Your task to perform on an android device: change the upload size in google photos Image 0: 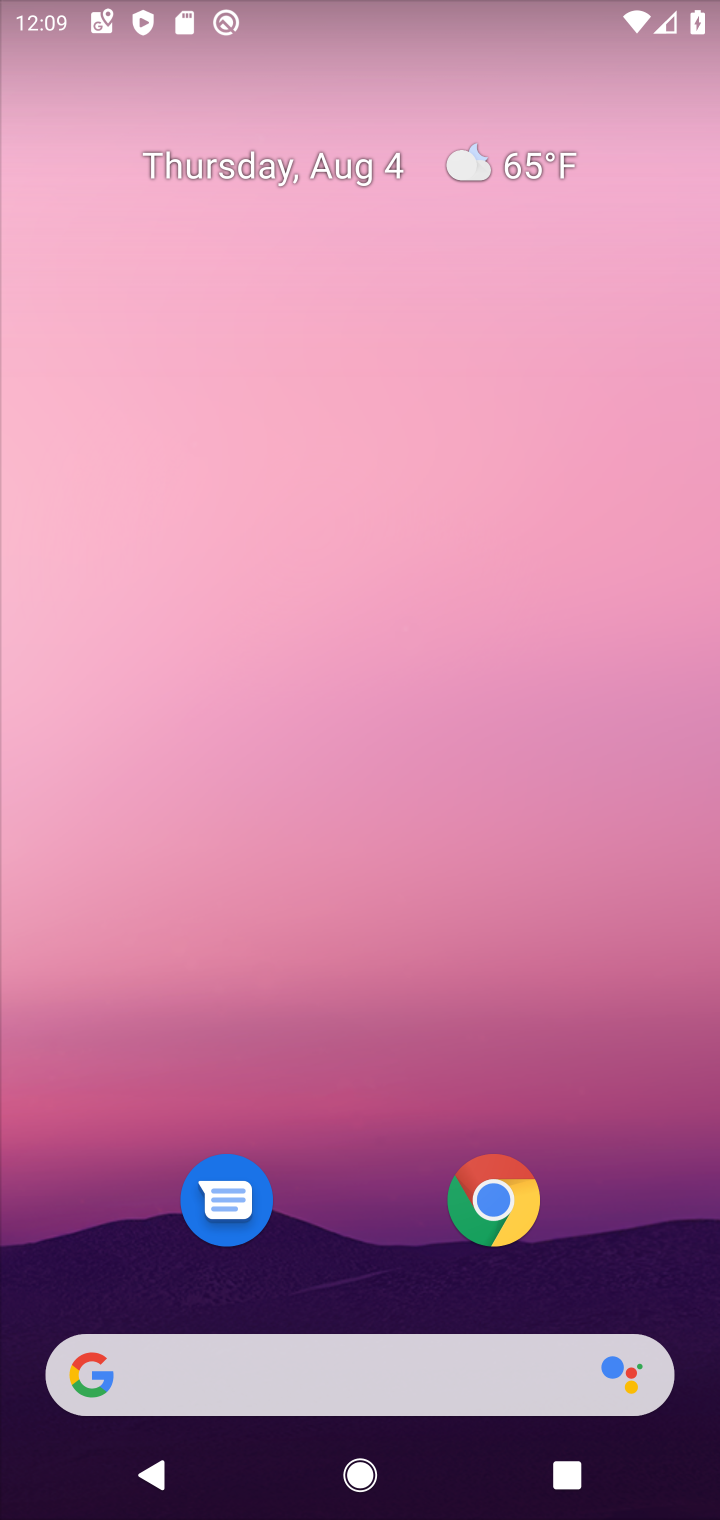
Step 0: press home button
Your task to perform on an android device: change the upload size in google photos Image 1: 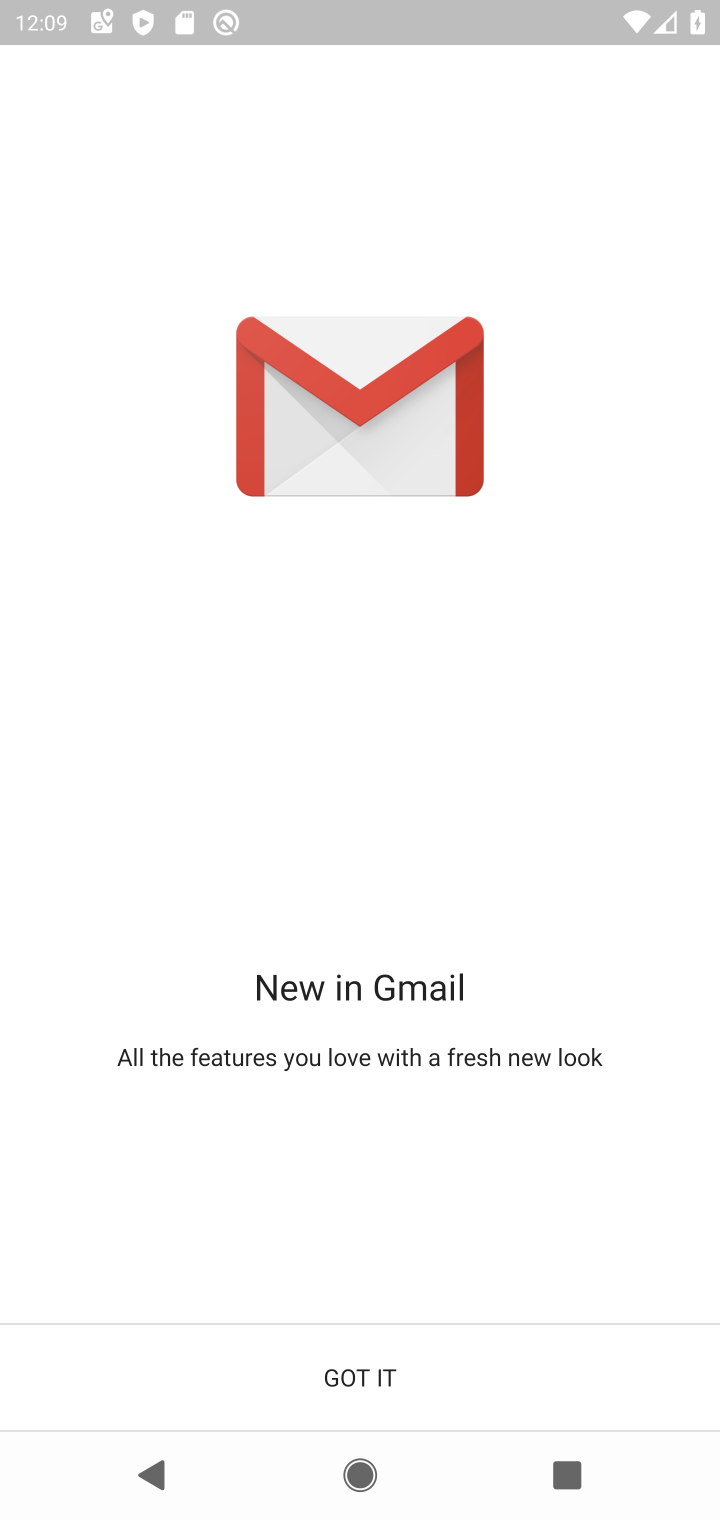
Step 1: click (362, 310)
Your task to perform on an android device: change the upload size in google photos Image 2: 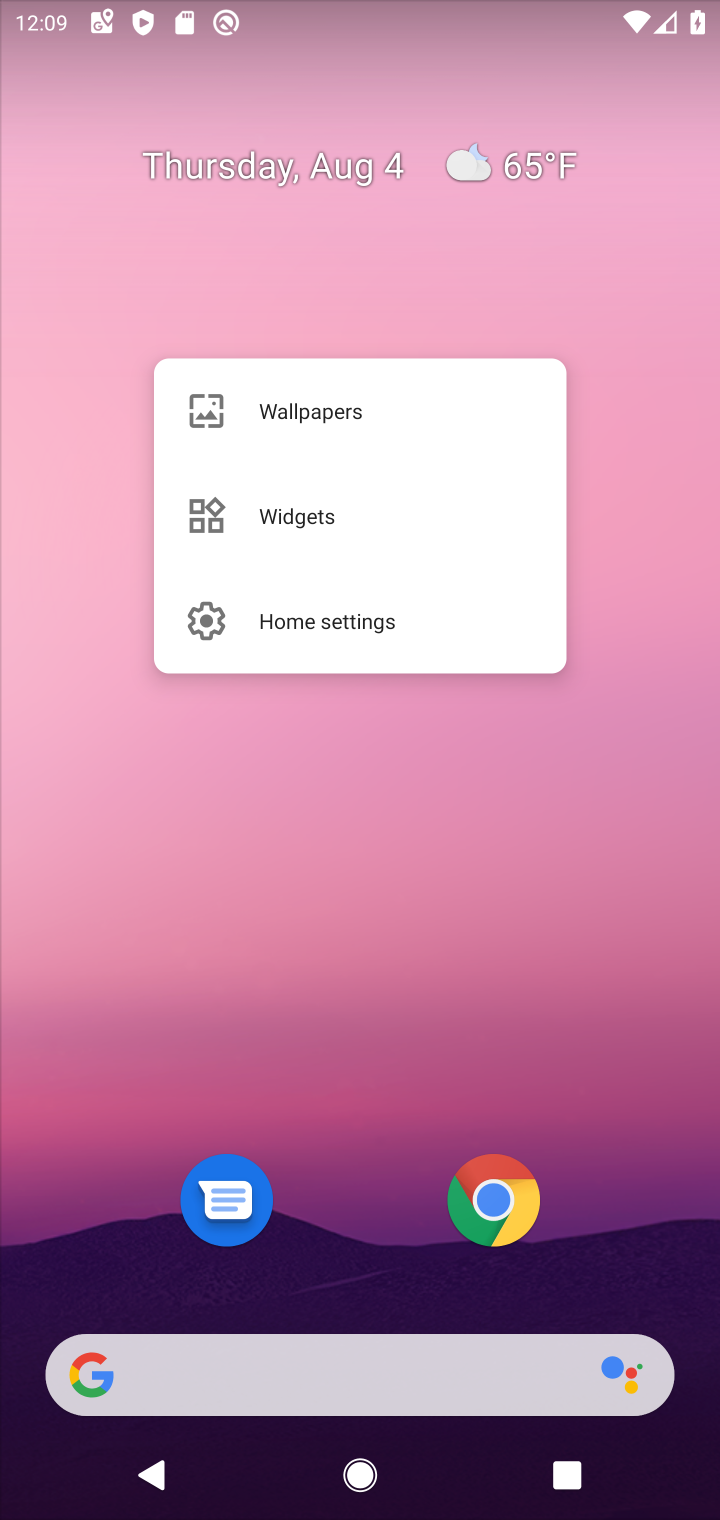
Step 2: click (497, 984)
Your task to perform on an android device: change the upload size in google photos Image 3: 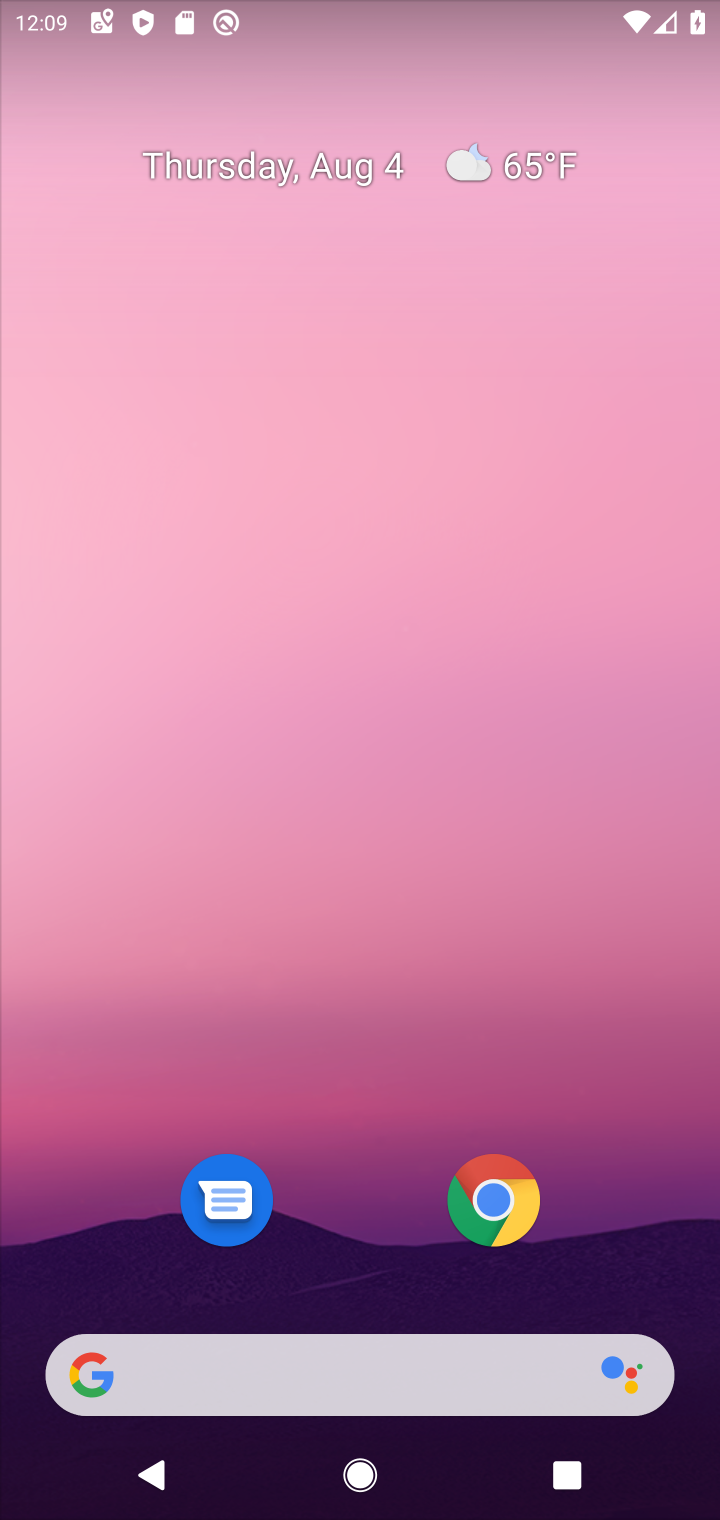
Step 3: drag from (388, 1254) to (283, 183)
Your task to perform on an android device: change the upload size in google photos Image 4: 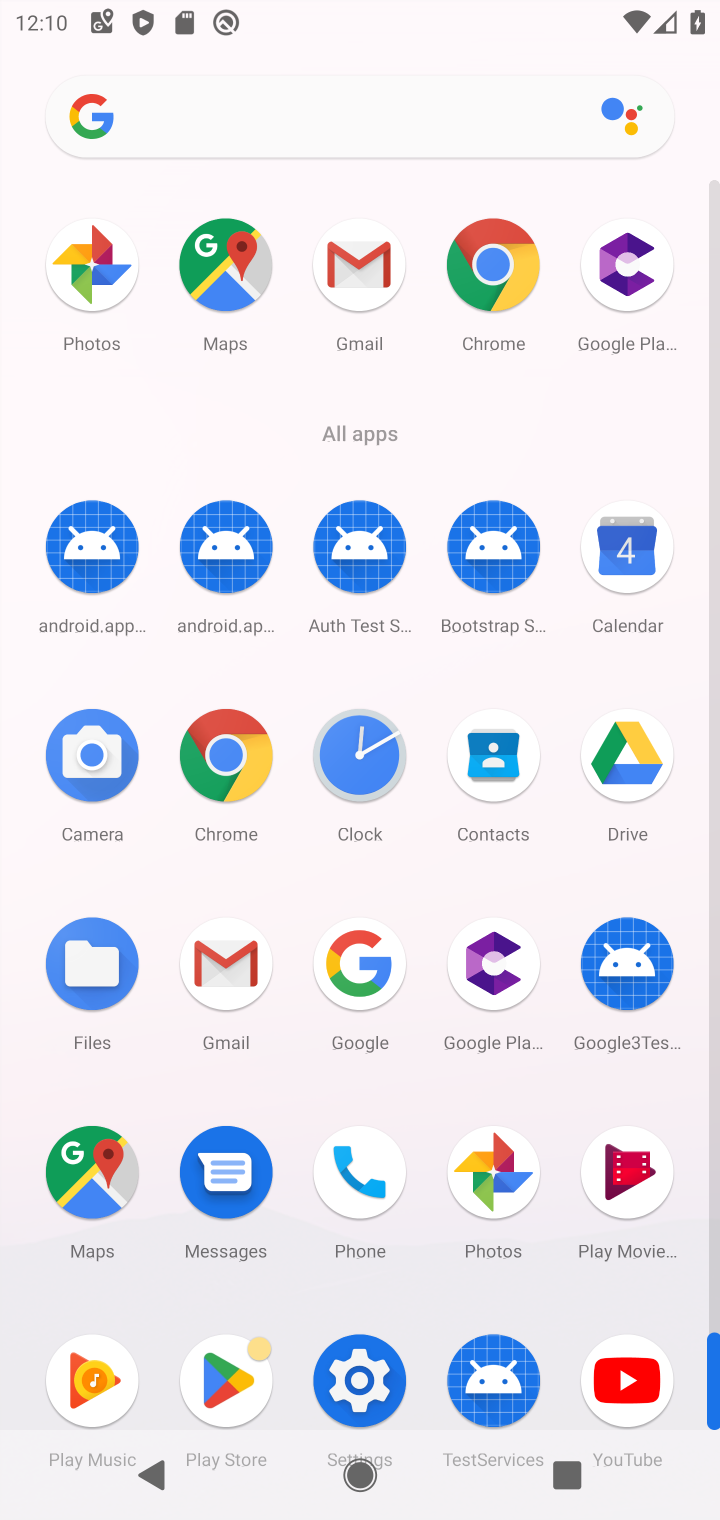
Step 4: click (501, 1166)
Your task to perform on an android device: change the upload size in google photos Image 5: 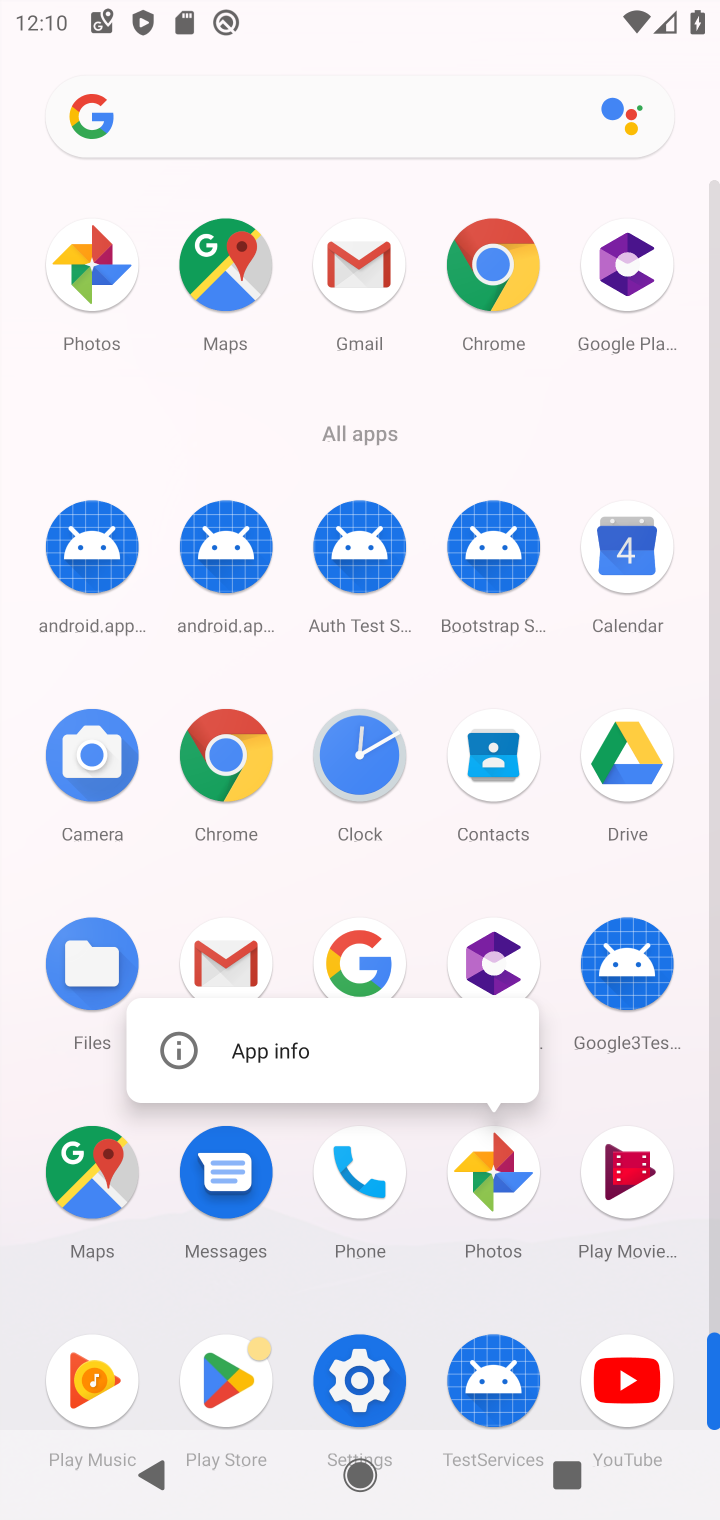
Step 5: click (497, 1173)
Your task to perform on an android device: change the upload size in google photos Image 6: 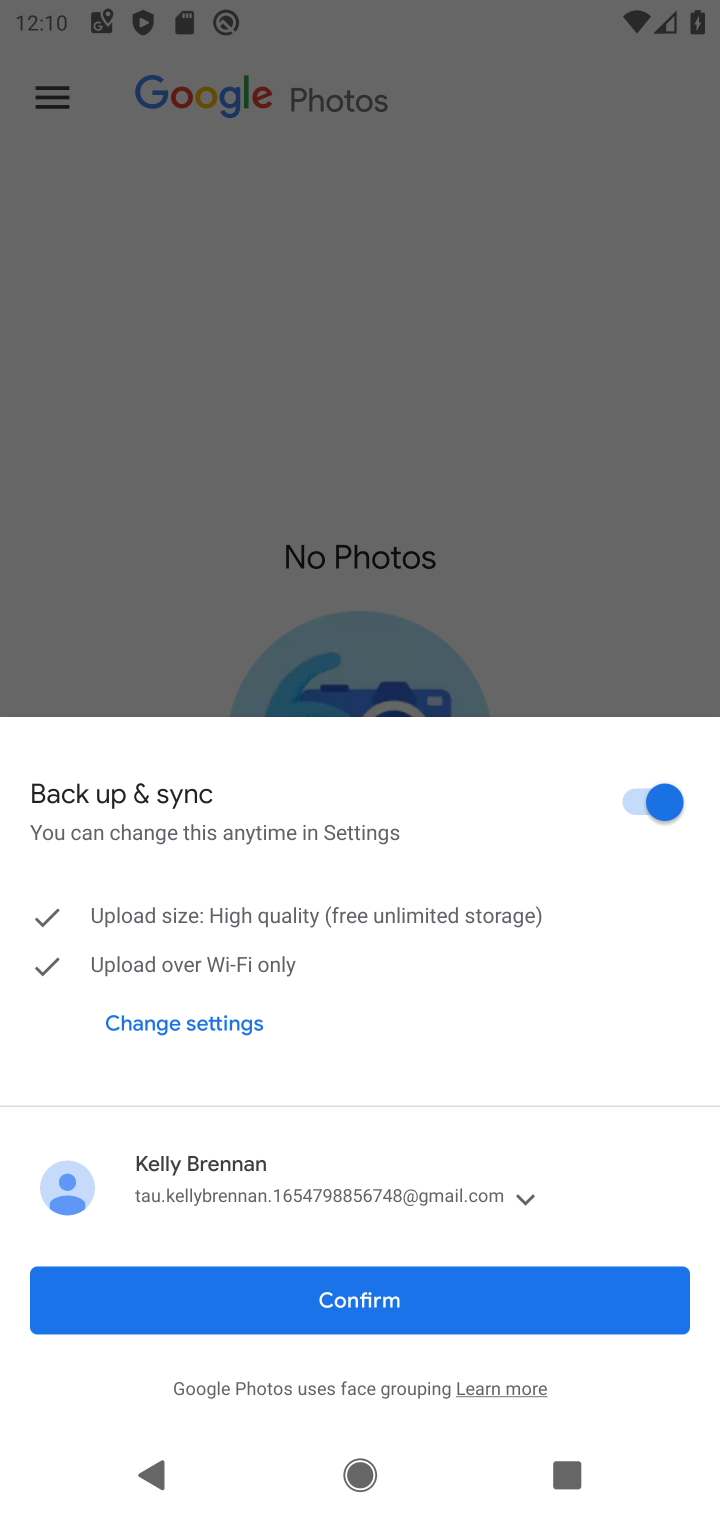
Step 6: press home button
Your task to perform on an android device: change the upload size in google photos Image 7: 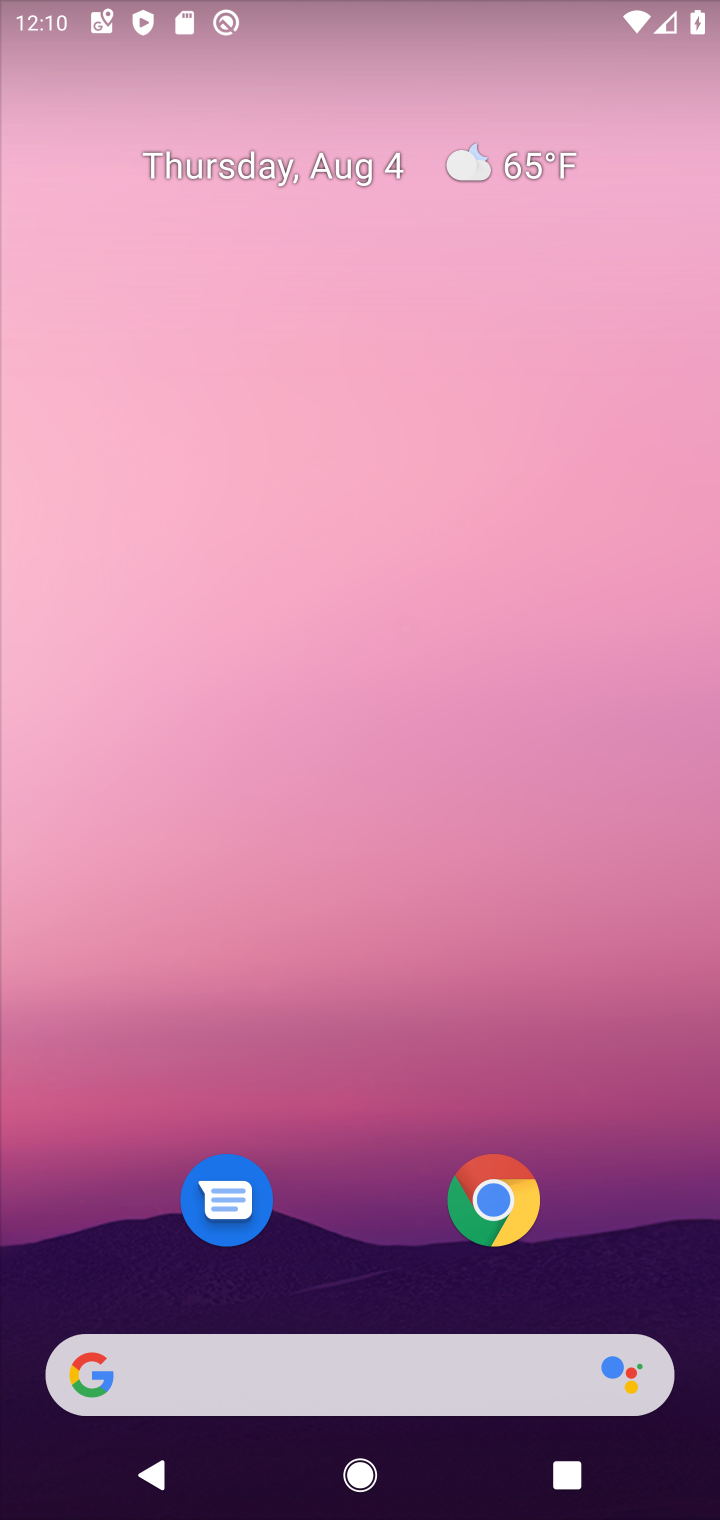
Step 7: drag from (363, 1067) to (393, 89)
Your task to perform on an android device: change the upload size in google photos Image 8: 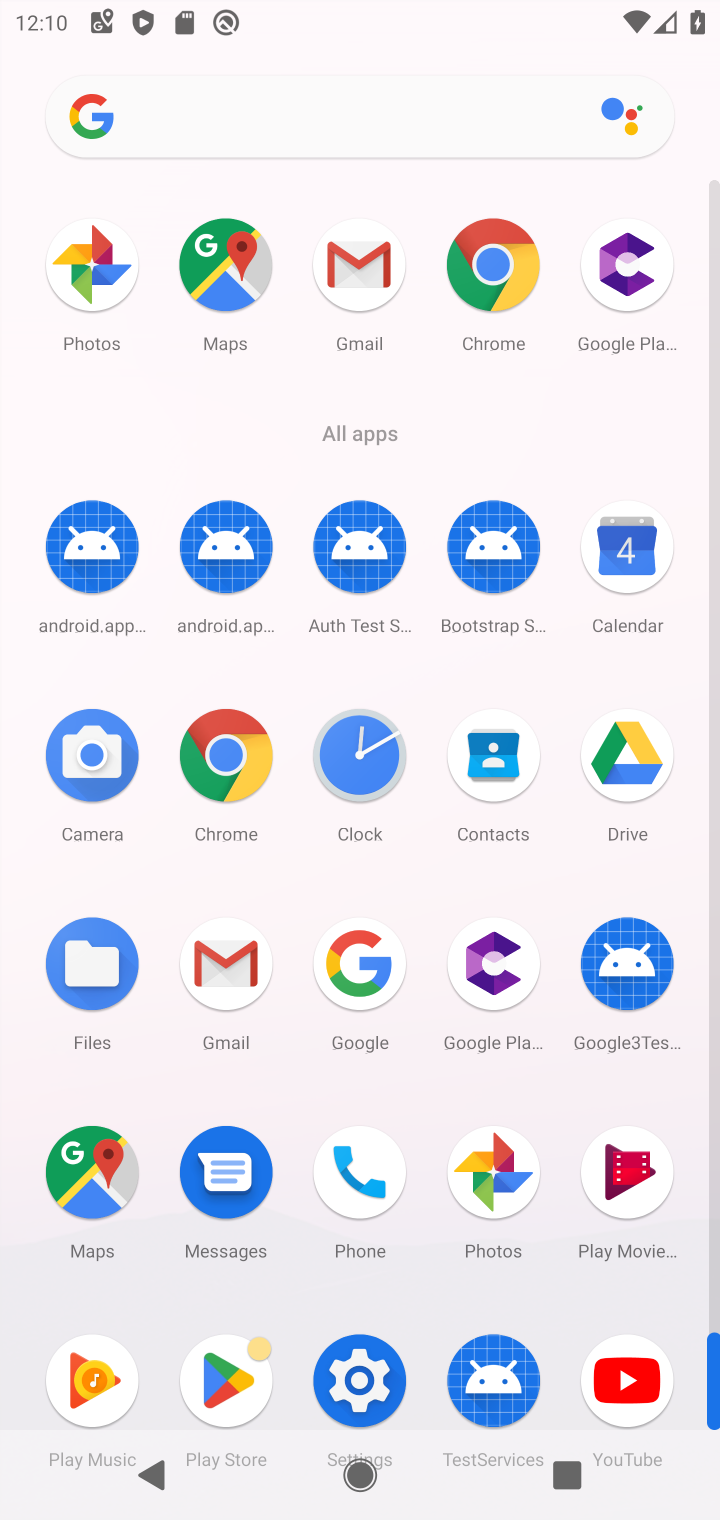
Step 8: click (495, 1150)
Your task to perform on an android device: change the upload size in google photos Image 9: 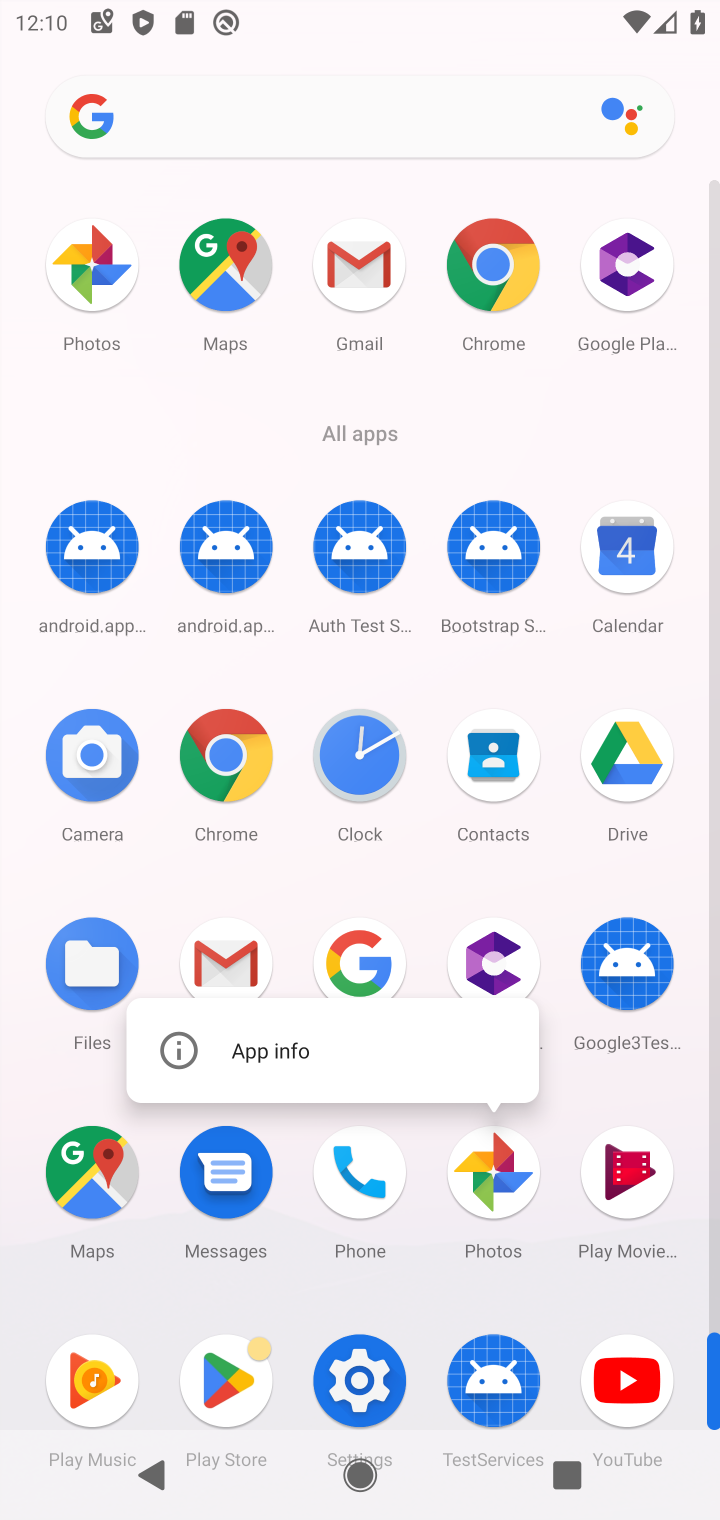
Step 9: click (495, 1150)
Your task to perform on an android device: change the upload size in google photos Image 10: 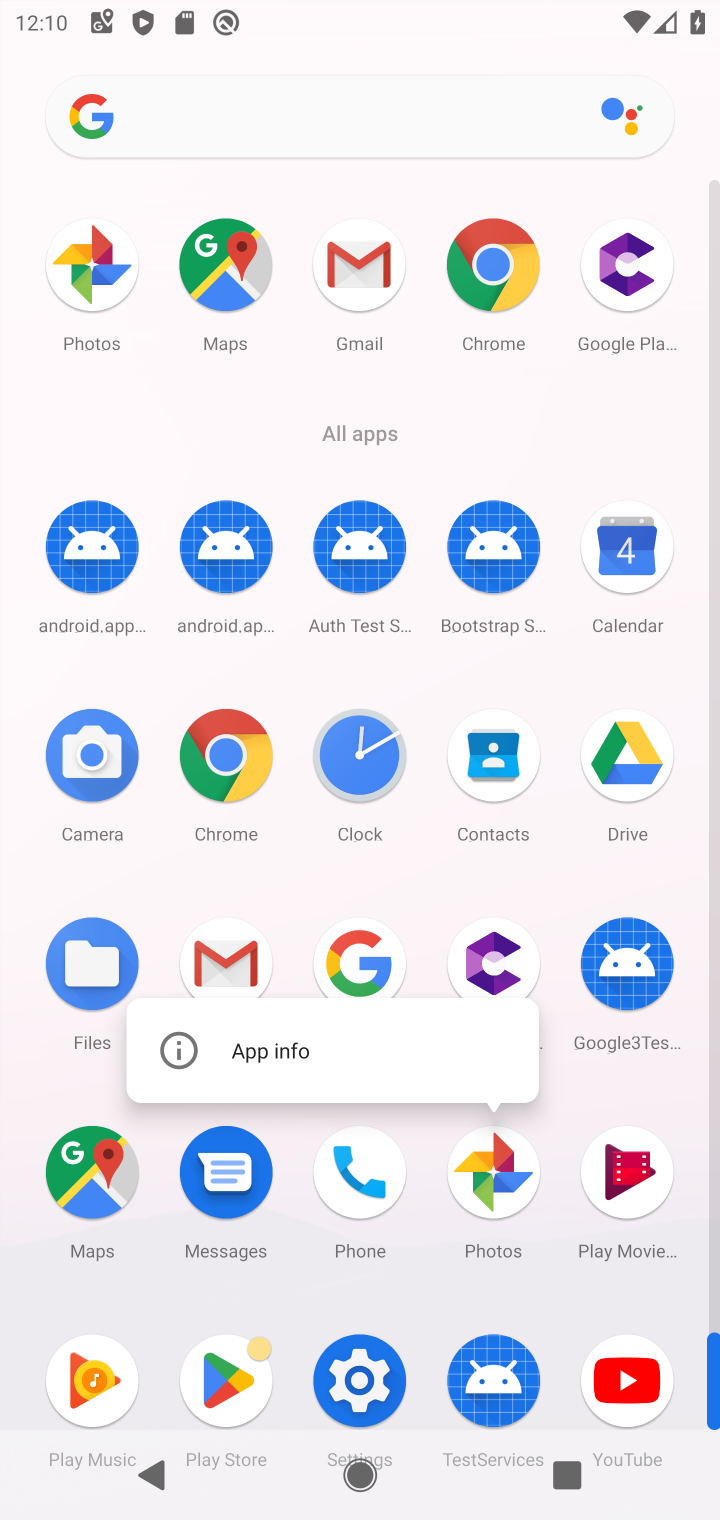
Step 10: click (495, 1172)
Your task to perform on an android device: change the upload size in google photos Image 11: 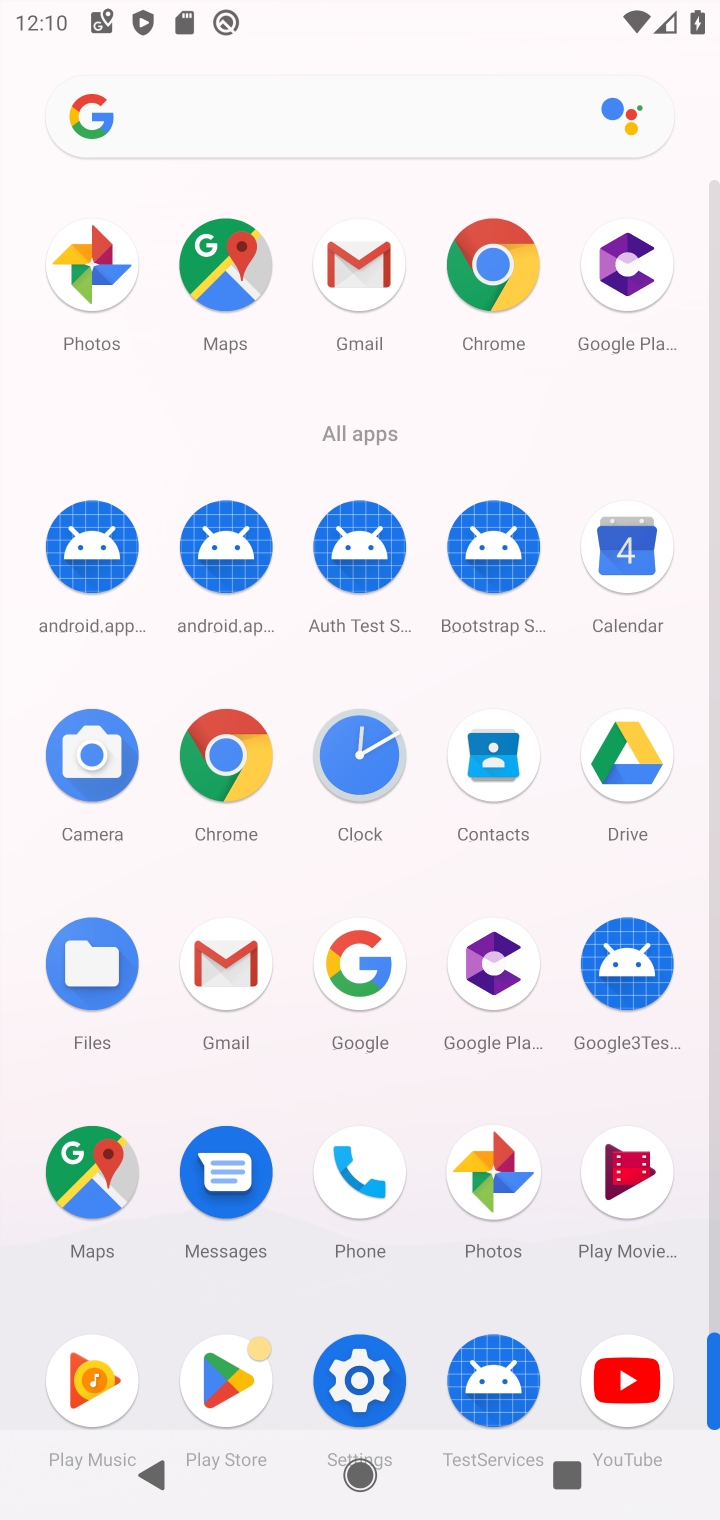
Step 11: click (495, 1172)
Your task to perform on an android device: change the upload size in google photos Image 12: 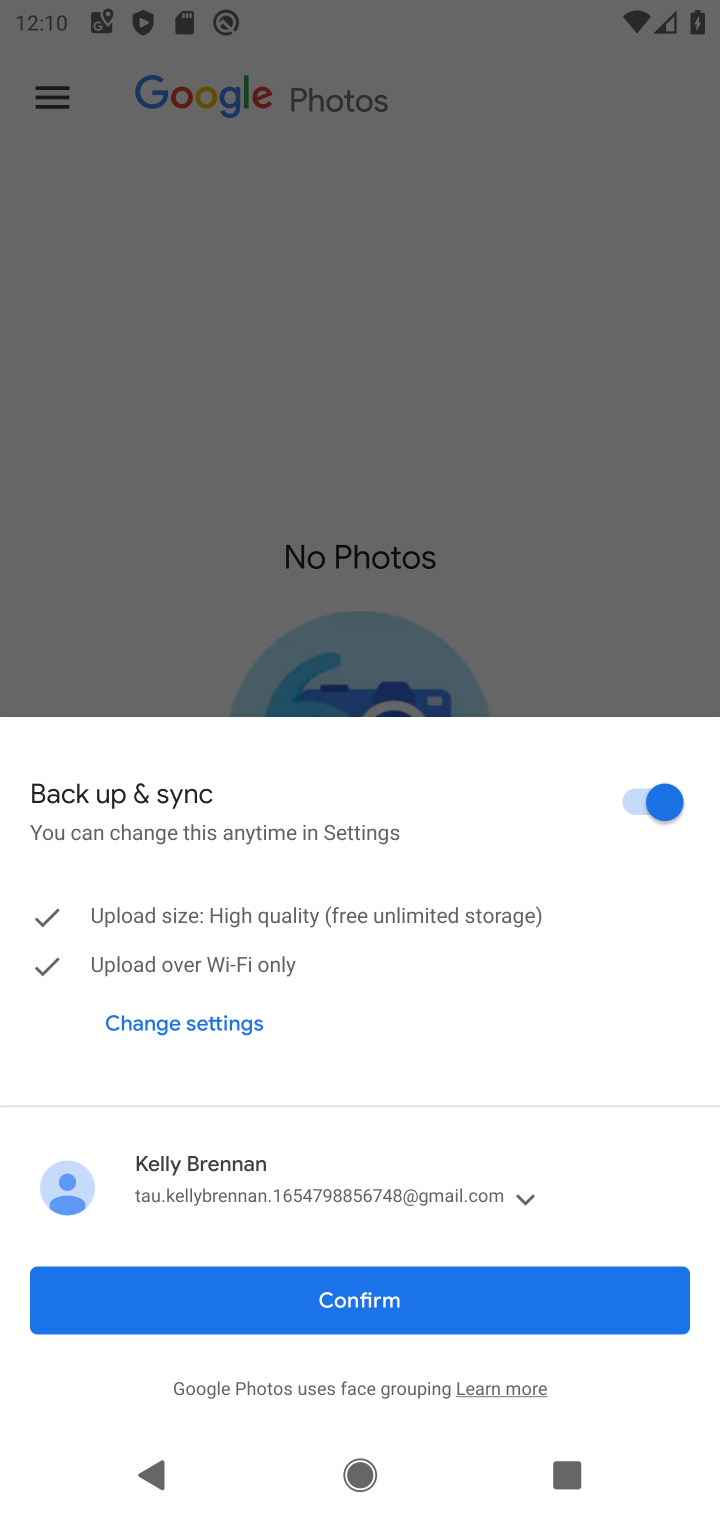
Step 12: click (232, 1272)
Your task to perform on an android device: change the upload size in google photos Image 13: 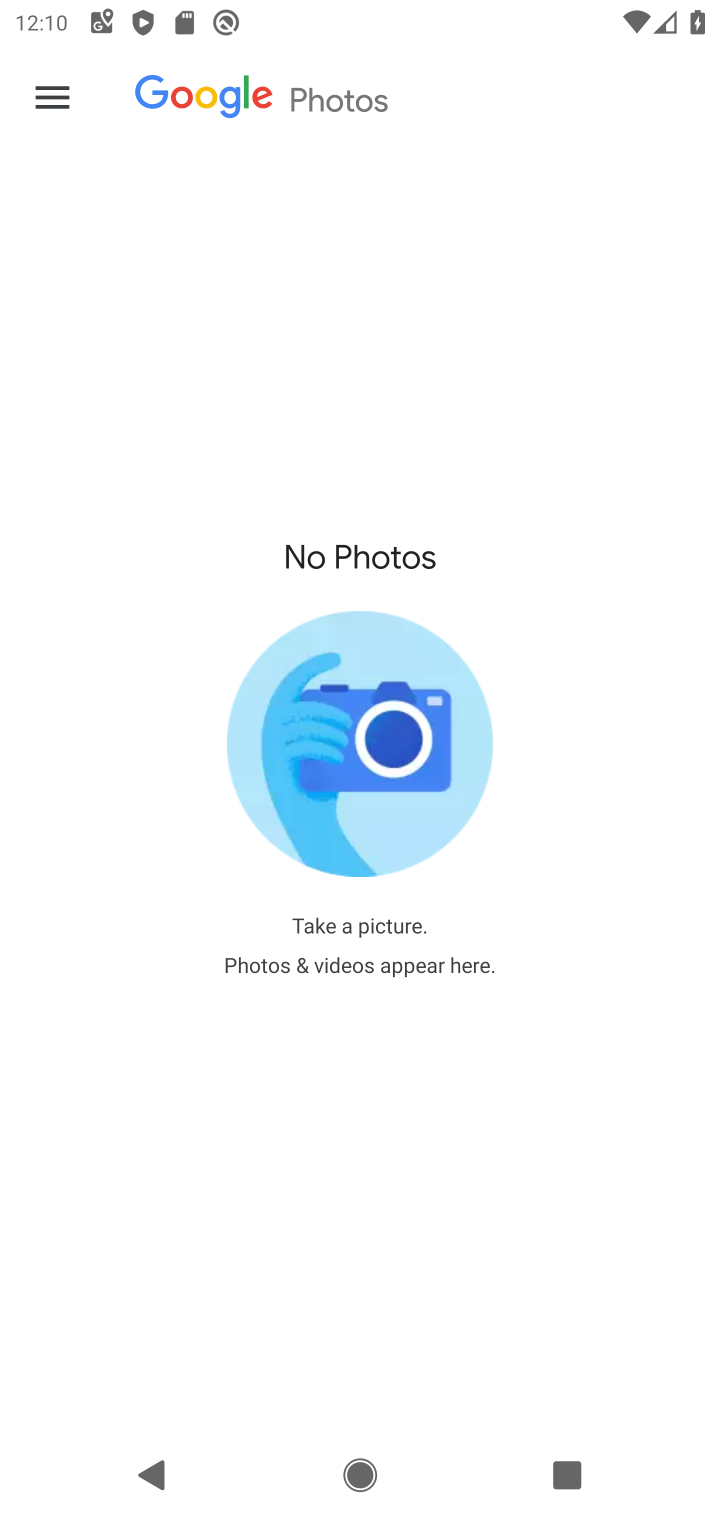
Step 13: click (232, 1272)
Your task to perform on an android device: change the upload size in google photos Image 14: 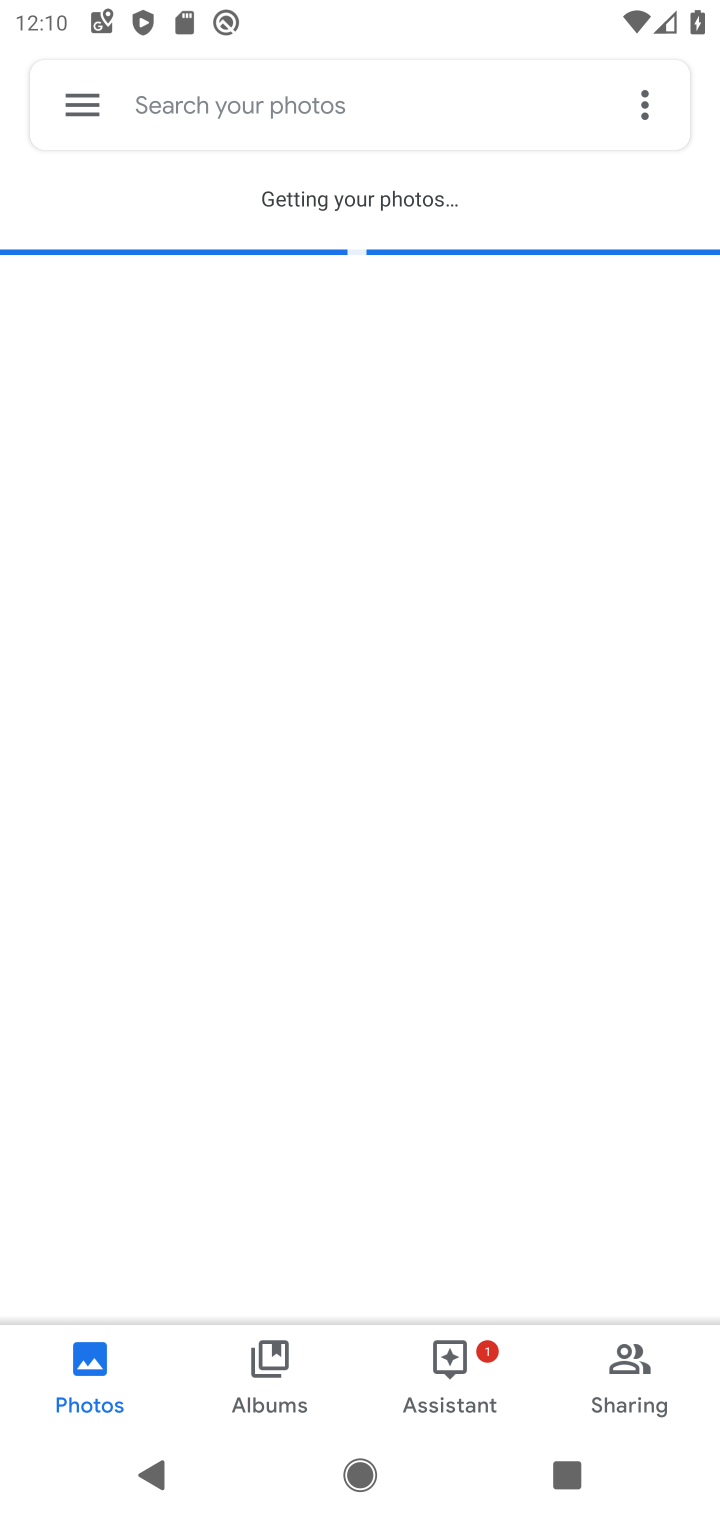
Step 14: click (85, 105)
Your task to perform on an android device: change the upload size in google photos Image 15: 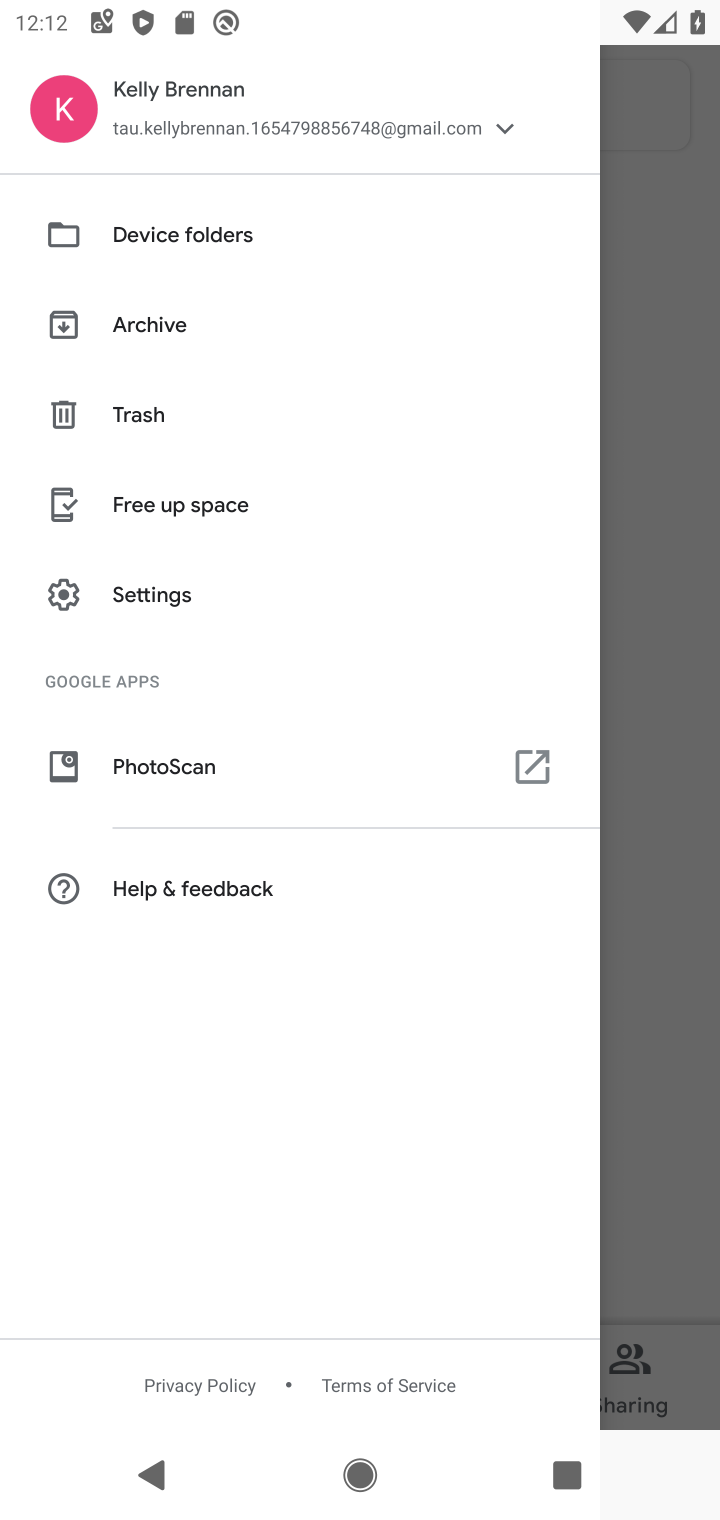
Step 15: click (141, 597)
Your task to perform on an android device: change the upload size in google photos Image 16: 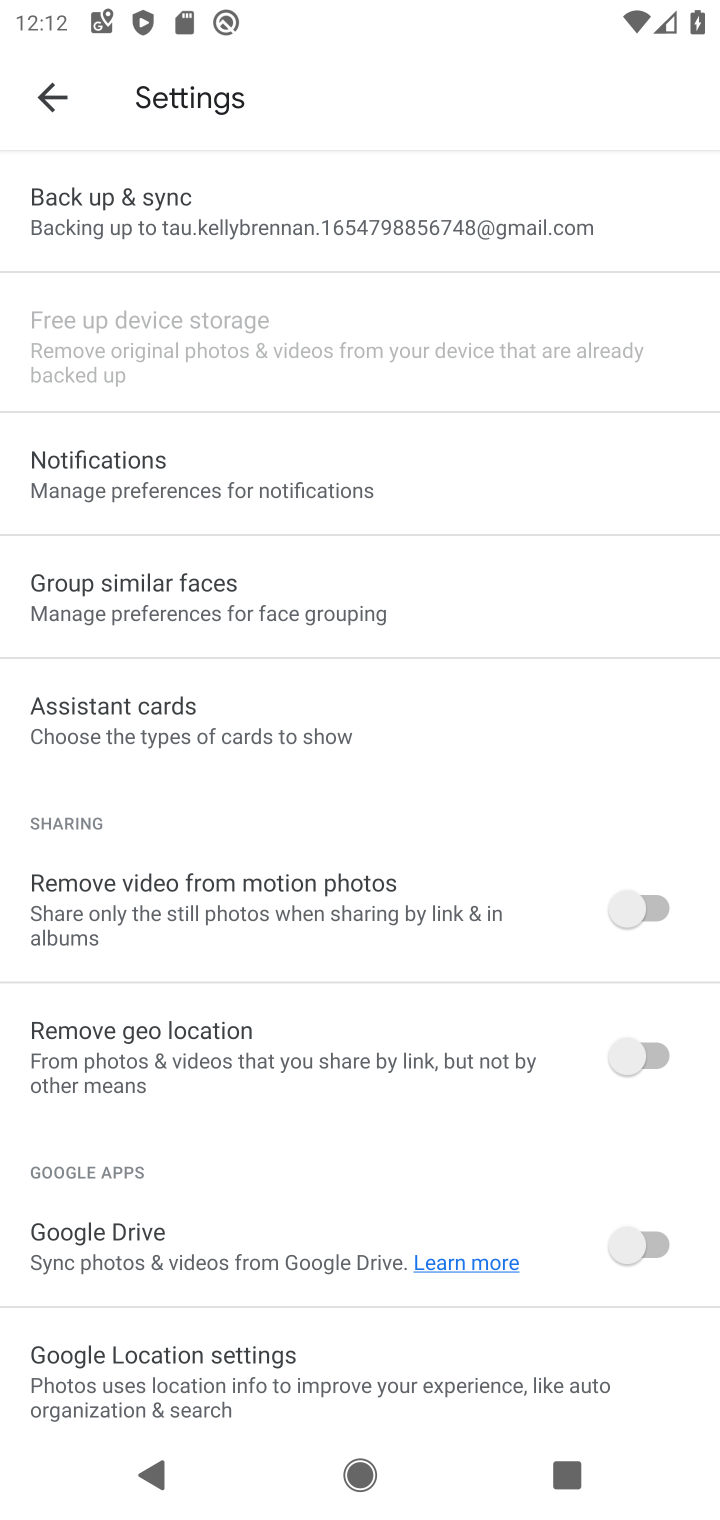
Step 16: click (127, 199)
Your task to perform on an android device: change the upload size in google photos Image 17: 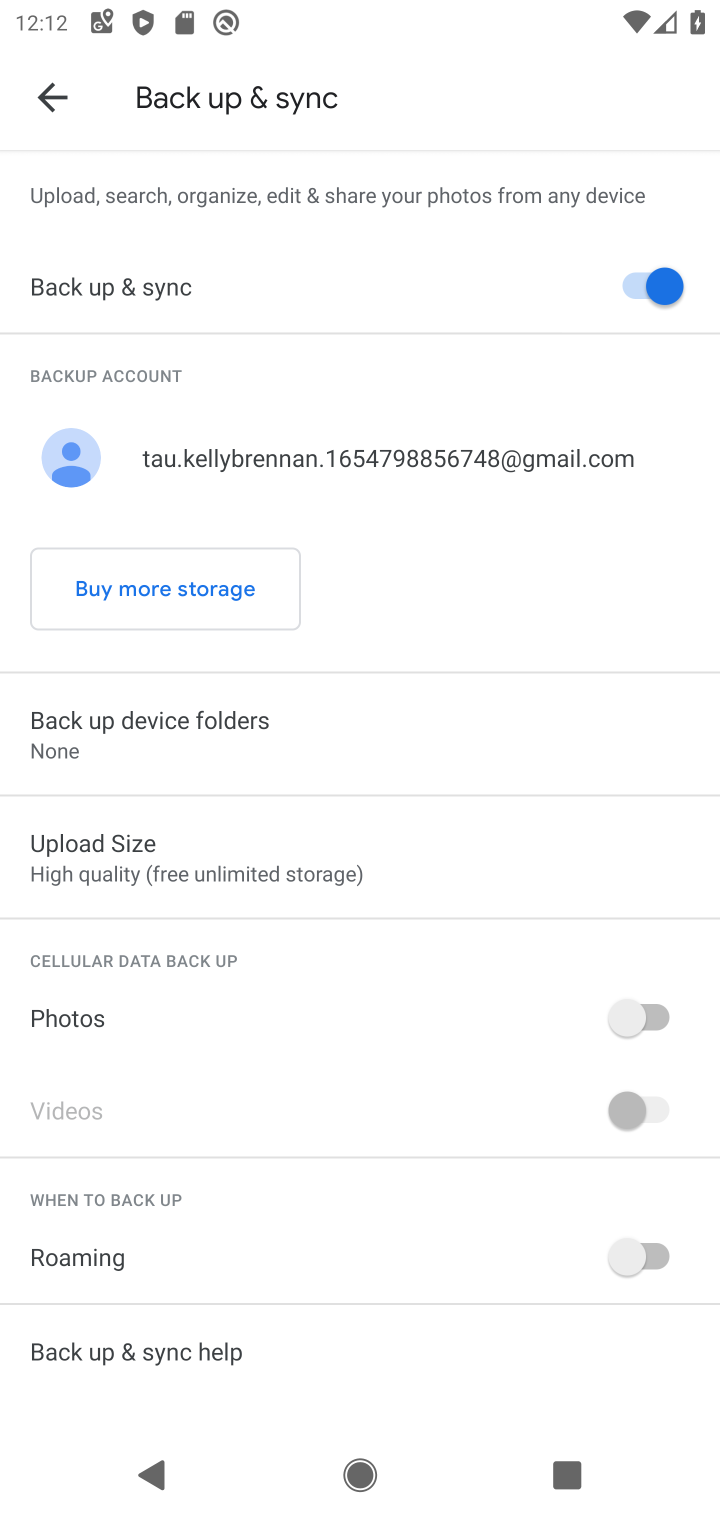
Step 17: click (58, 849)
Your task to perform on an android device: change the upload size in google photos Image 18: 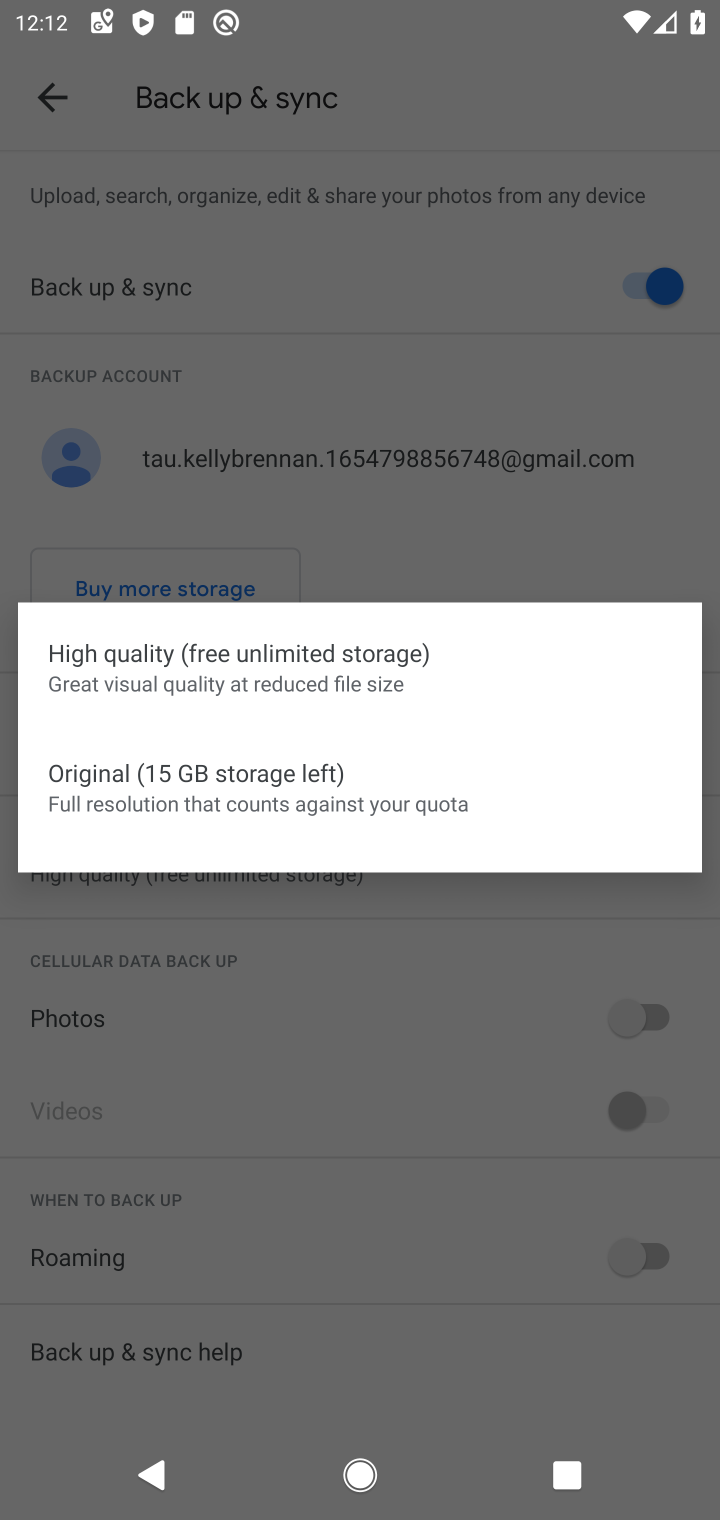
Step 18: click (154, 772)
Your task to perform on an android device: change the upload size in google photos Image 19: 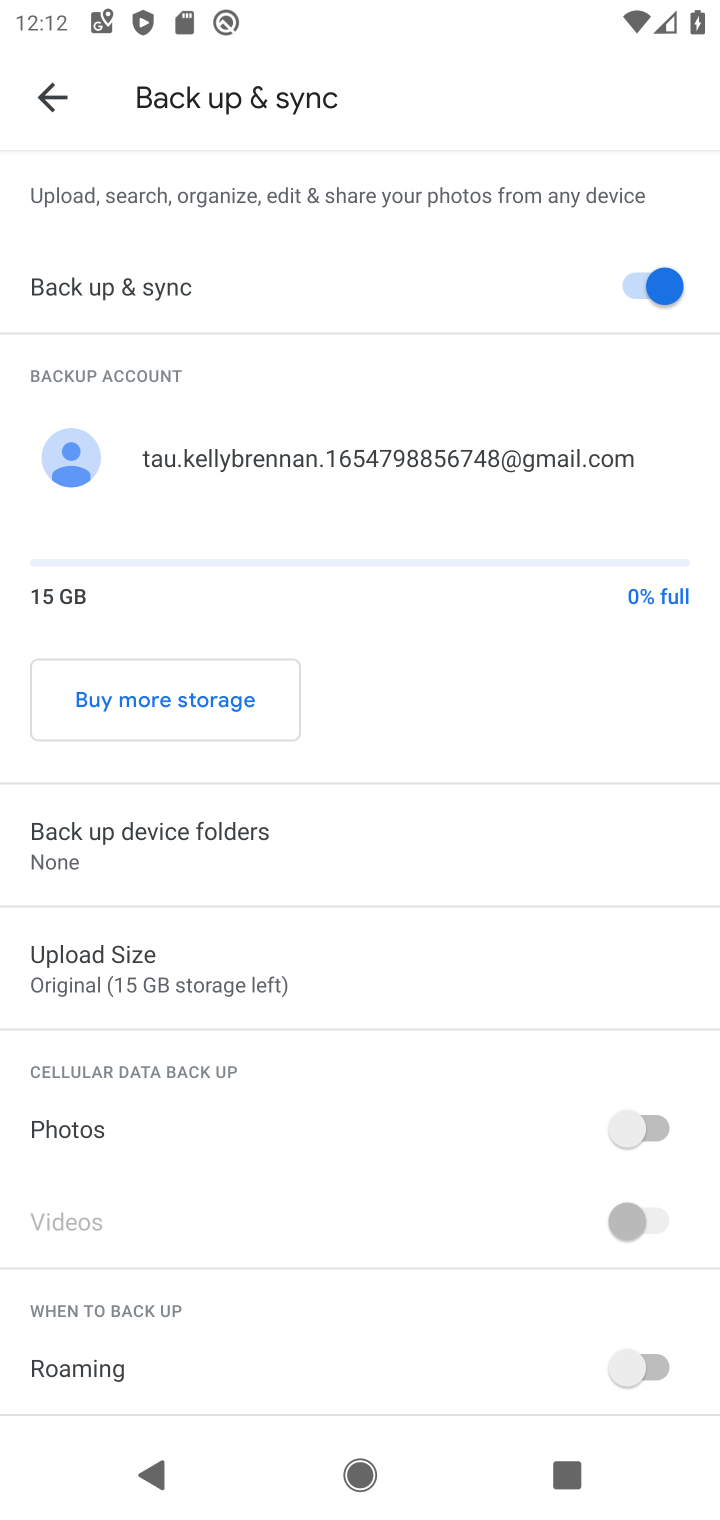
Step 19: click (154, 772)
Your task to perform on an android device: change the upload size in google photos Image 20: 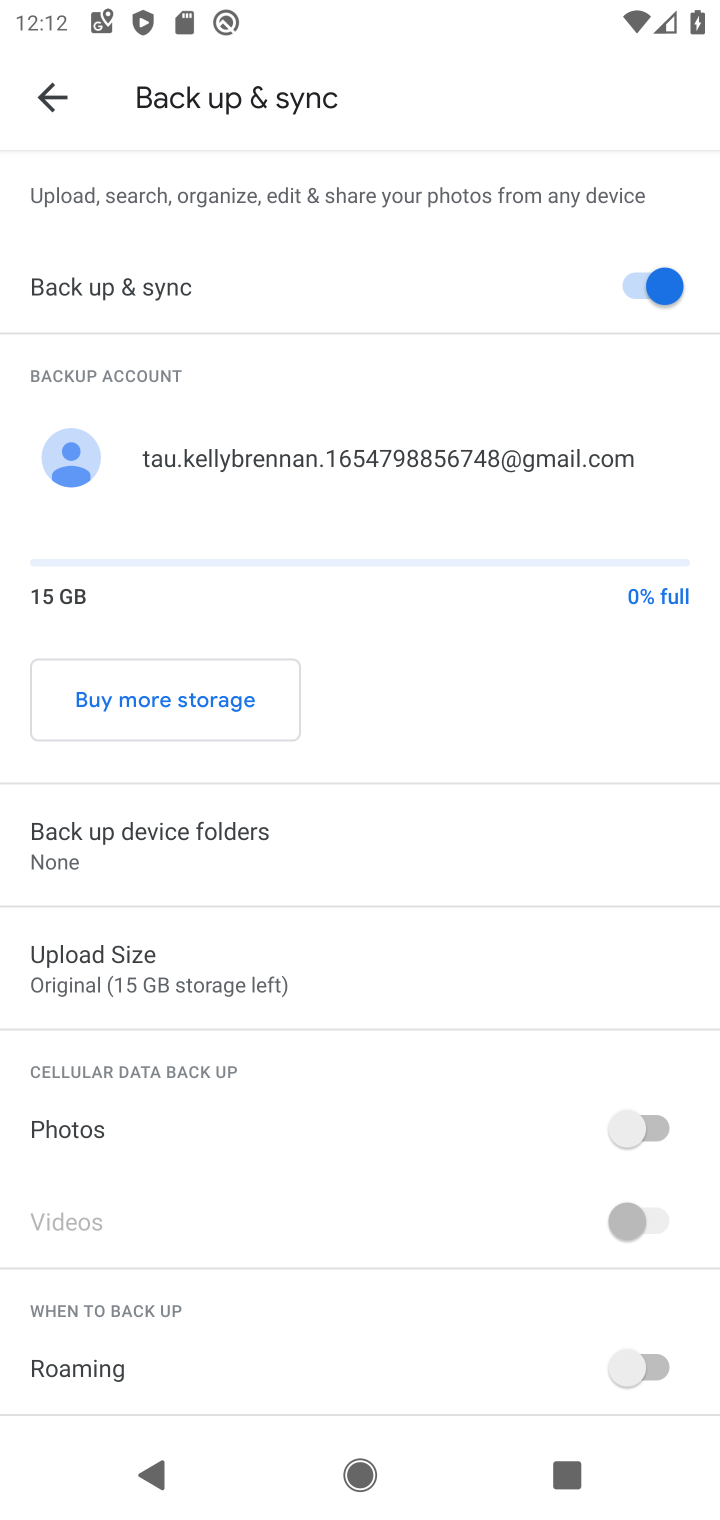
Step 20: task complete